Your task to perform on an android device: Go to privacy settings Image 0: 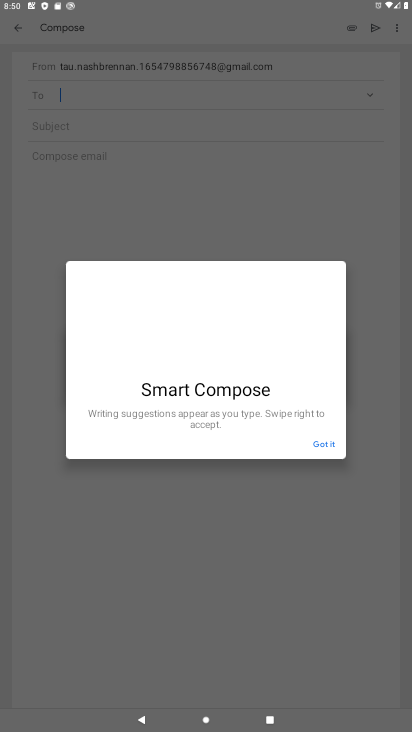
Step 0: press home button
Your task to perform on an android device: Go to privacy settings Image 1: 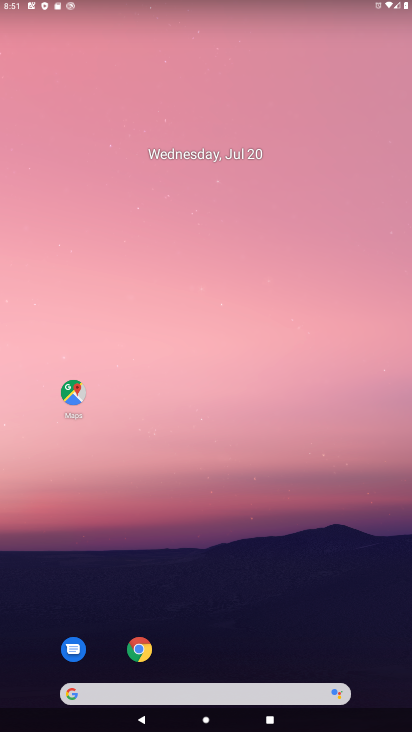
Step 1: drag from (248, 677) to (201, 233)
Your task to perform on an android device: Go to privacy settings Image 2: 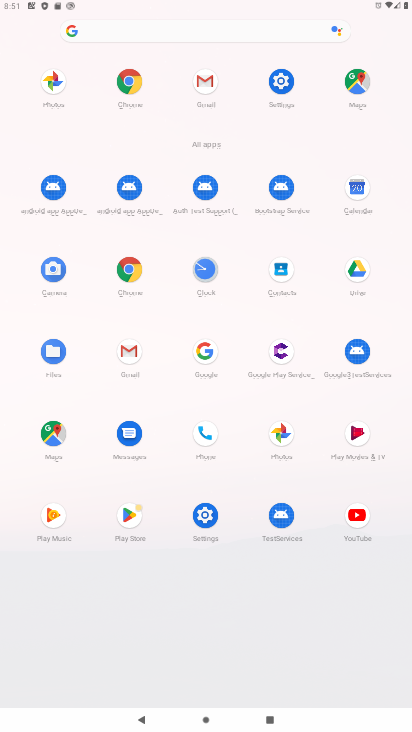
Step 2: click (132, 79)
Your task to perform on an android device: Go to privacy settings Image 3: 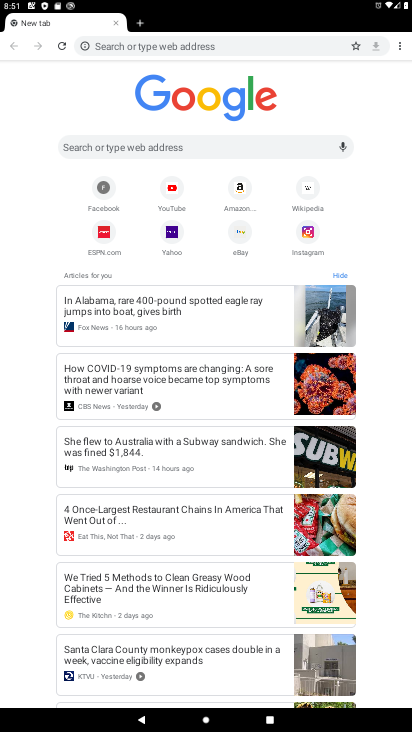
Step 3: press home button
Your task to perform on an android device: Go to privacy settings Image 4: 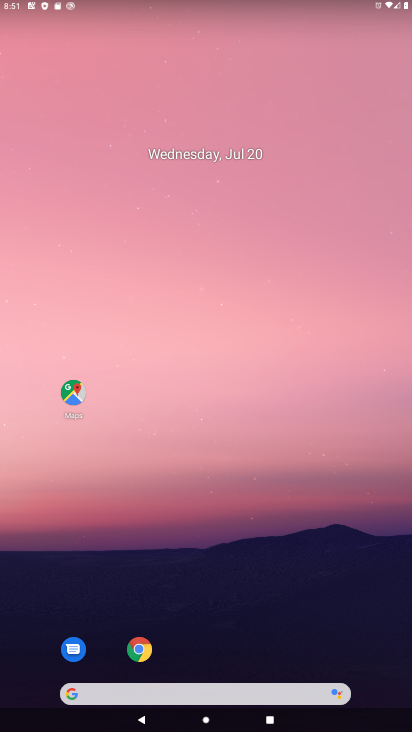
Step 4: drag from (224, 690) to (212, 286)
Your task to perform on an android device: Go to privacy settings Image 5: 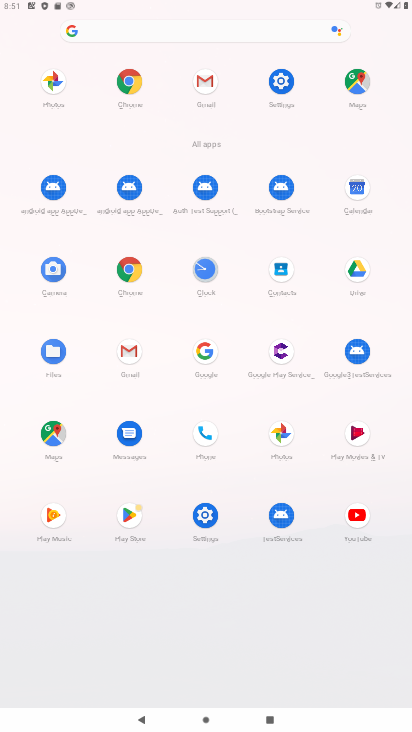
Step 5: click (283, 83)
Your task to perform on an android device: Go to privacy settings Image 6: 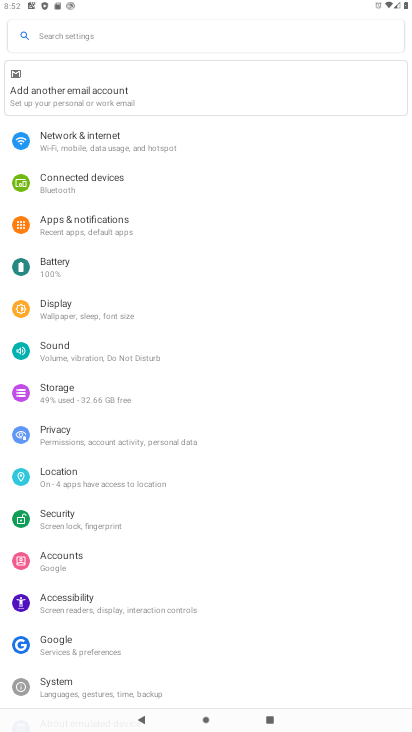
Step 6: click (65, 443)
Your task to perform on an android device: Go to privacy settings Image 7: 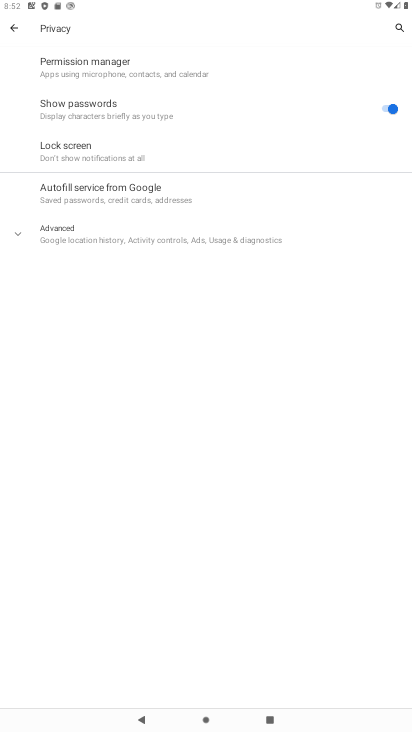
Step 7: click (68, 242)
Your task to perform on an android device: Go to privacy settings Image 8: 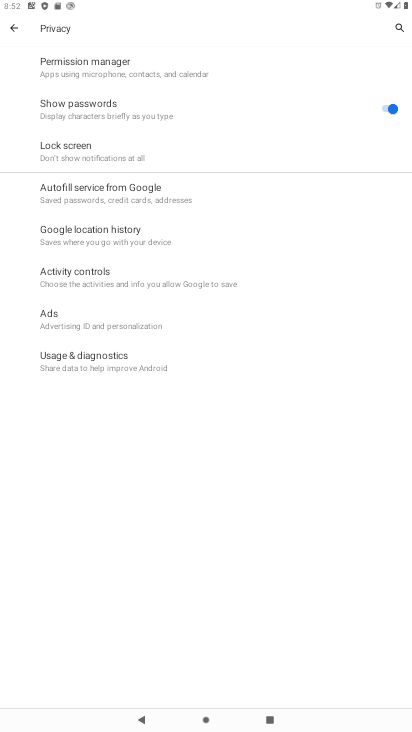
Step 8: task complete